Your task to perform on an android device: Turn on the flashlight Image 0: 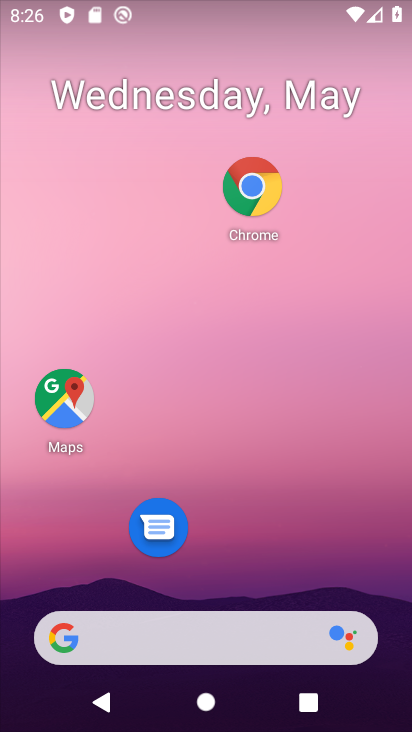
Step 0: drag from (358, 405) to (365, 113)
Your task to perform on an android device: Turn on the flashlight Image 1: 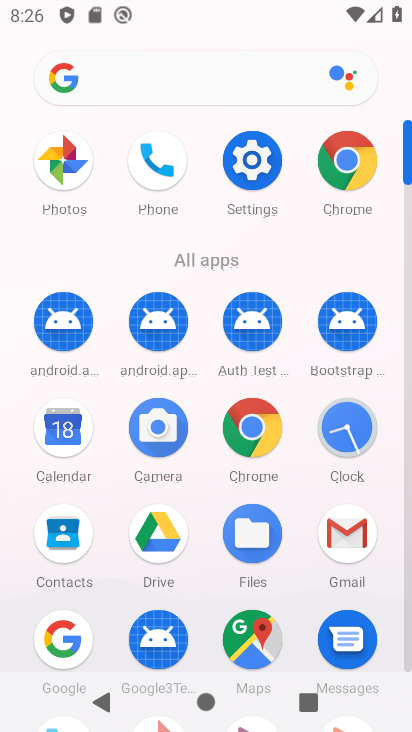
Step 1: task complete